Your task to perform on an android device: open the mobile data screen to see how much data has been used Image 0: 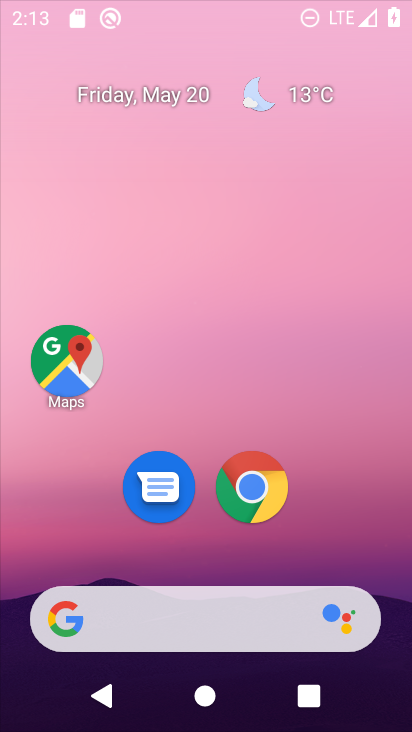
Step 0: press home button
Your task to perform on an android device: open the mobile data screen to see how much data has been used Image 1: 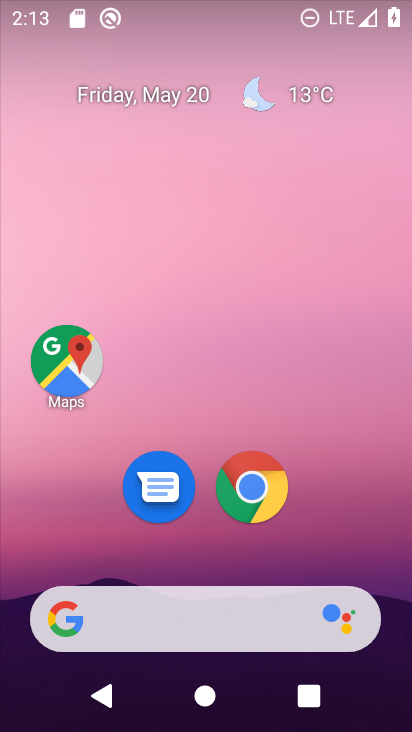
Step 1: drag from (209, 543) to (282, 103)
Your task to perform on an android device: open the mobile data screen to see how much data has been used Image 2: 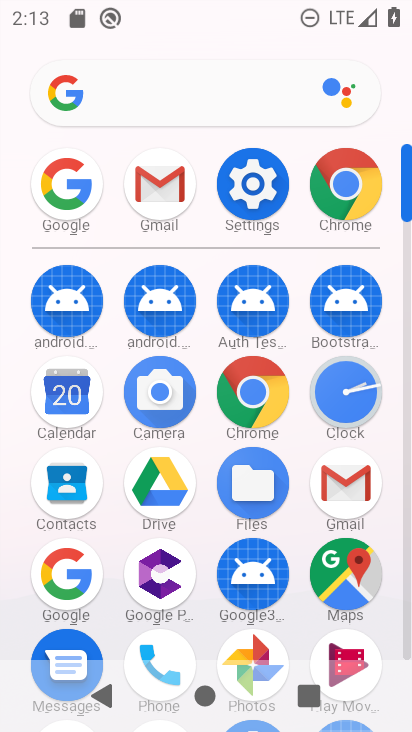
Step 2: click (252, 171)
Your task to perform on an android device: open the mobile data screen to see how much data has been used Image 3: 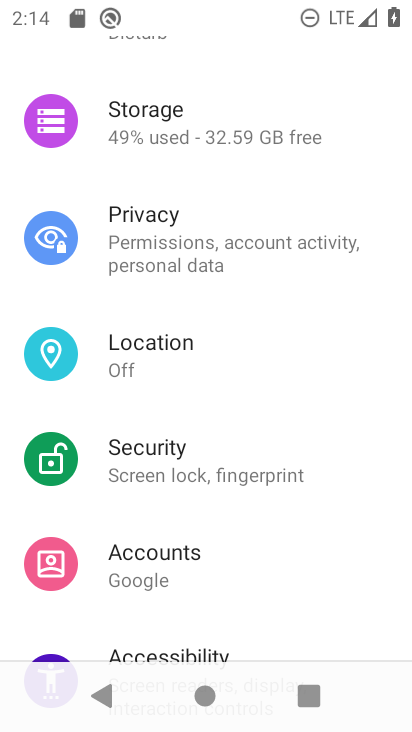
Step 3: drag from (184, 145) to (162, 589)
Your task to perform on an android device: open the mobile data screen to see how much data has been used Image 4: 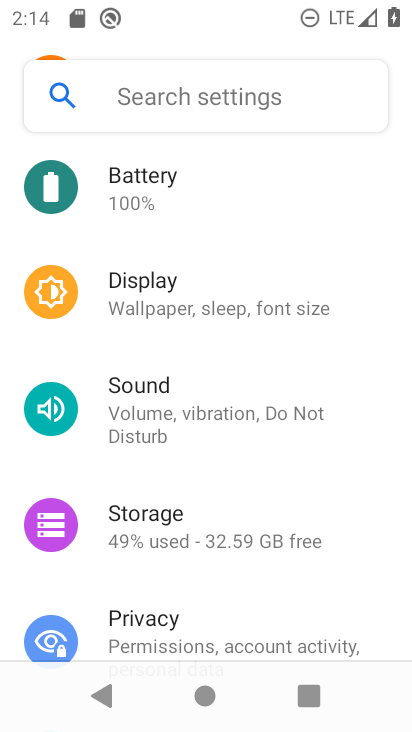
Step 4: drag from (192, 200) to (149, 587)
Your task to perform on an android device: open the mobile data screen to see how much data has been used Image 5: 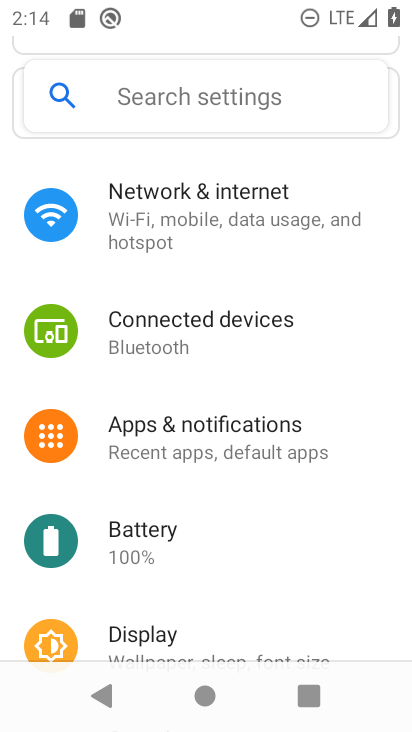
Step 5: click (183, 225)
Your task to perform on an android device: open the mobile data screen to see how much data has been used Image 6: 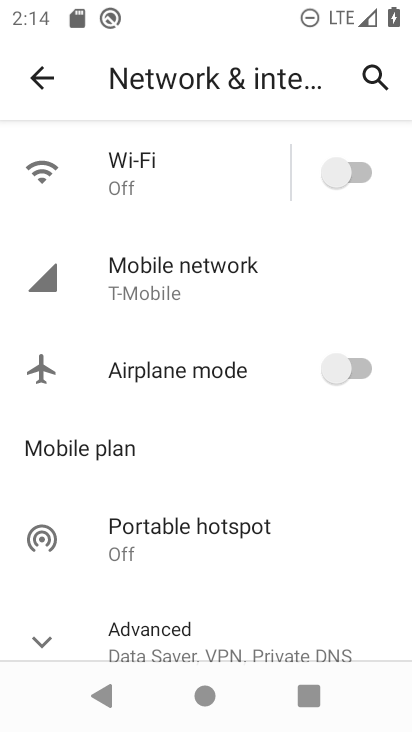
Step 6: click (193, 285)
Your task to perform on an android device: open the mobile data screen to see how much data has been used Image 7: 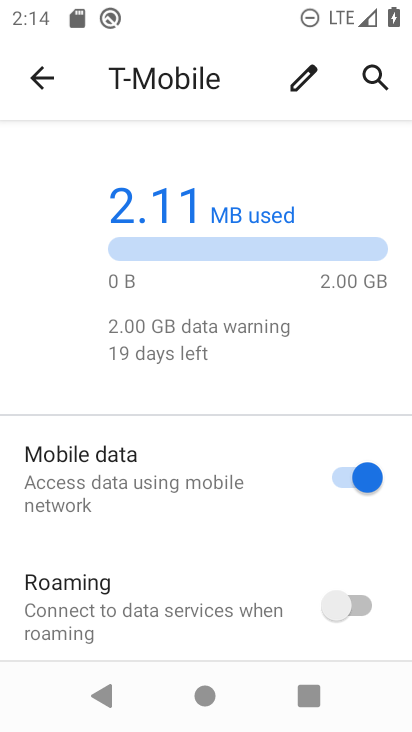
Step 7: drag from (143, 607) to (174, 197)
Your task to perform on an android device: open the mobile data screen to see how much data has been used Image 8: 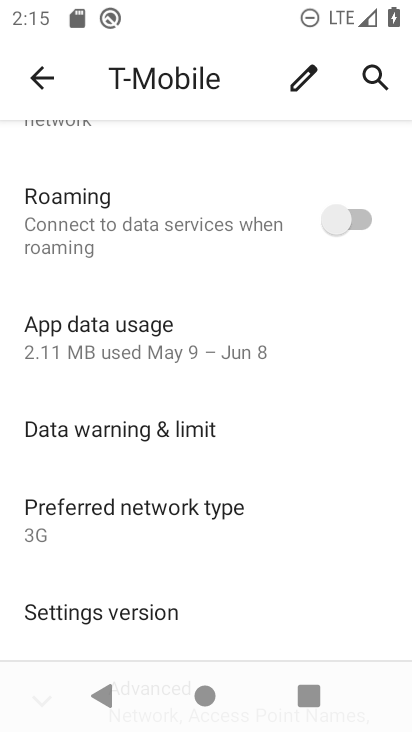
Step 8: click (139, 347)
Your task to perform on an android device: open the mobile data screen to see how much data has been used Image 9: 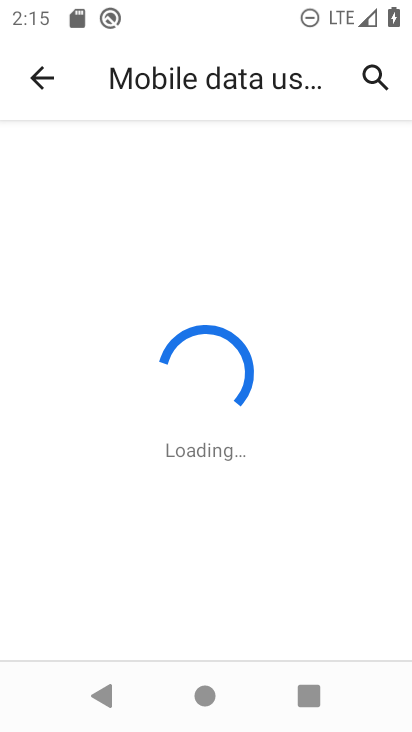
Step 9: task complete